Your task to perform on an android device: Go to Maps Image 0: 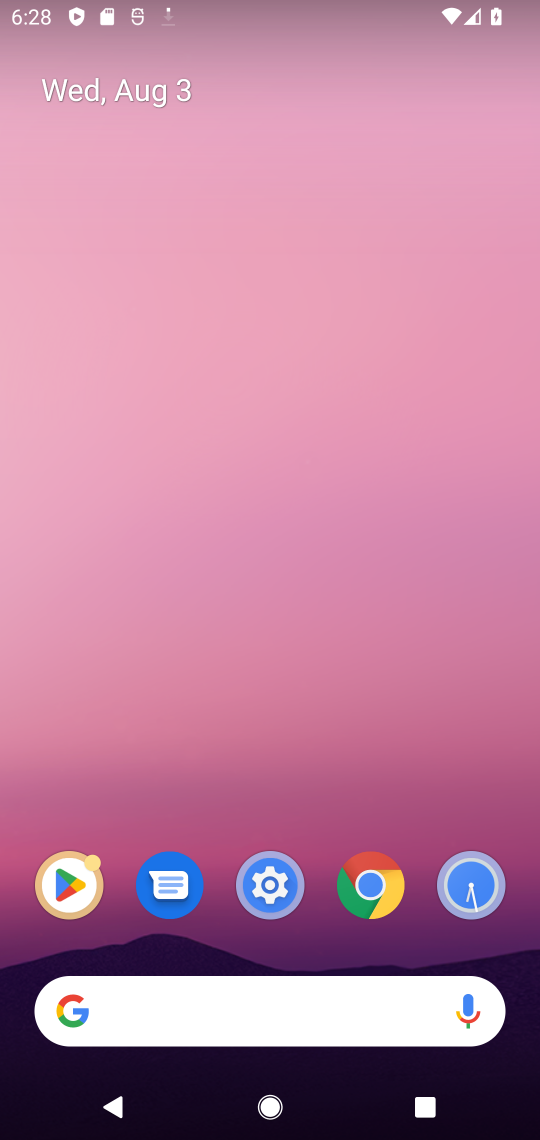
Step 0: drag from (374, 731) to (374, 85)
Your task to perform on an android device: Go to Maps Image 1: 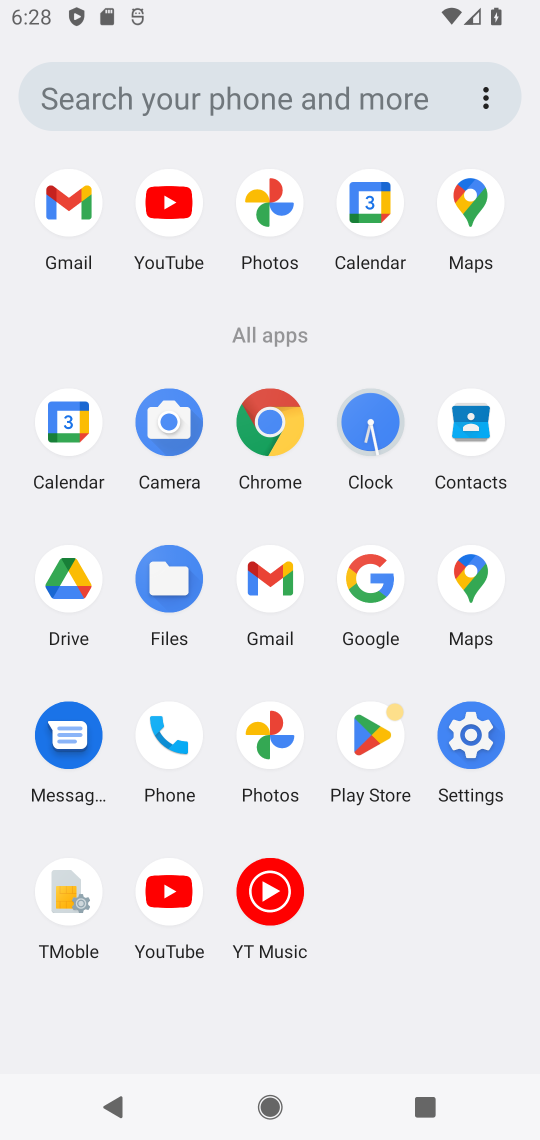
Step 1: click (473, 585)
Your task to perform on an android device: Go to Maps Image 2: 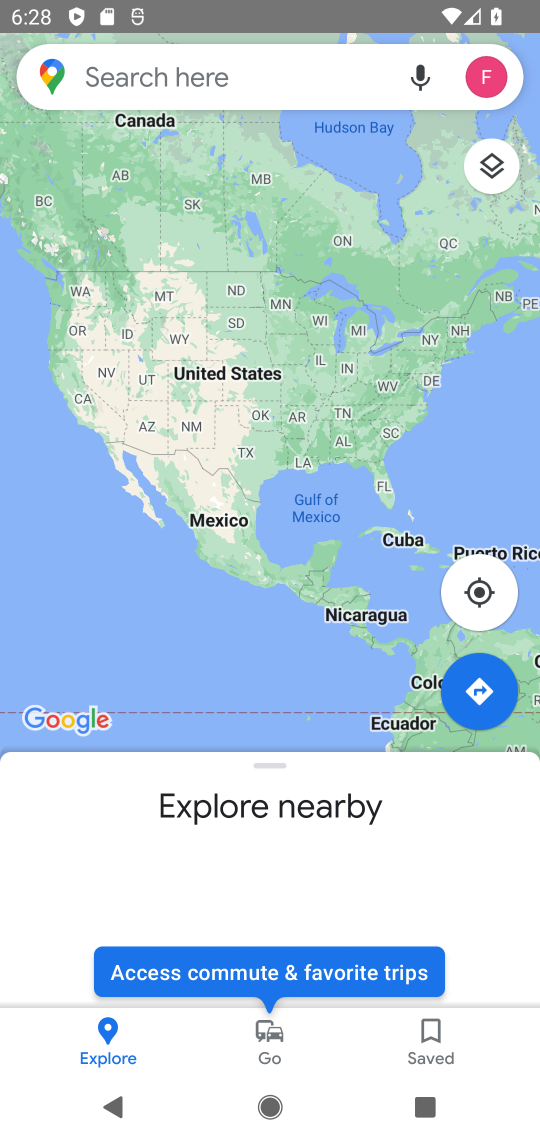
Step 2: click (211, 303)
Your task to perform on an android device: Go to Maps Image 3: 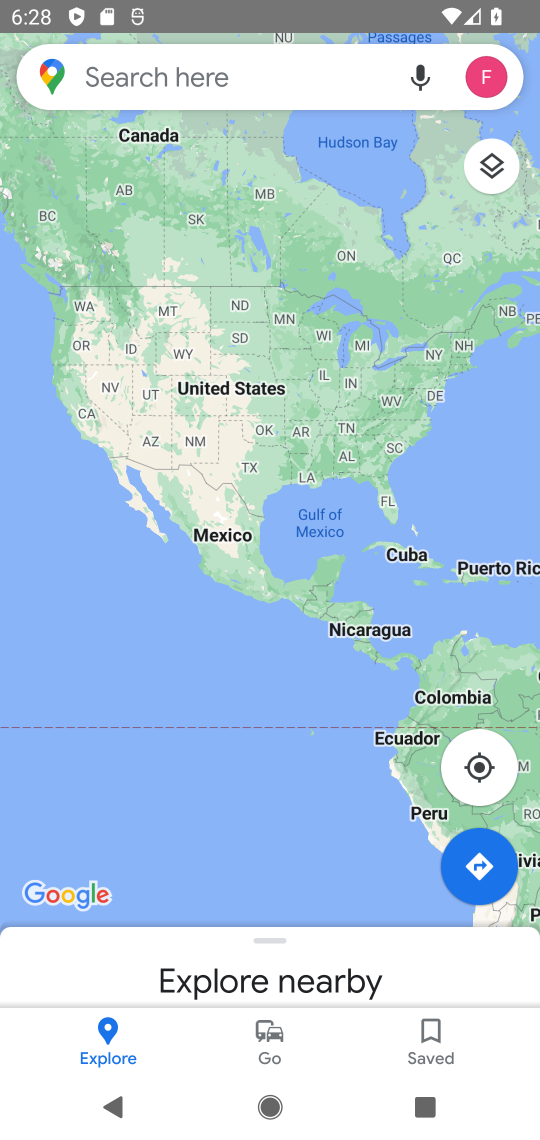
Step 3: task complete